Your task to perform on an android device: turn off airplane mode Image 0: 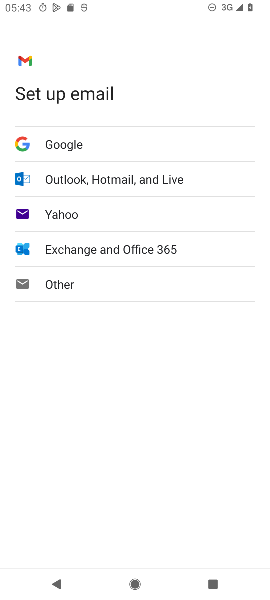
Step 0: press home button
Your task to perform on an android device: turn off airplane mode Image 1: 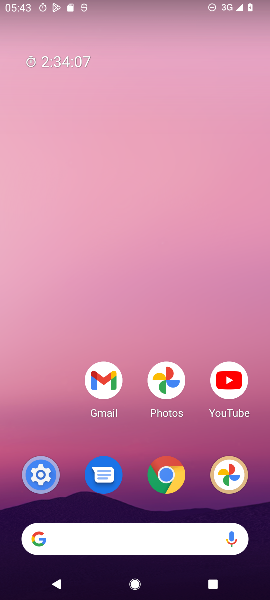
Step 1: drag from (57, 425) to (54, 159)
Your task to perform on an android device: turn off airplane mode Image 2: 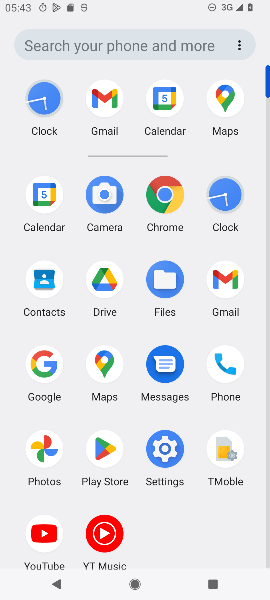
Step 2: click (168, 454)
Your task to perform on an android device: turn off airplane mode Image 3: 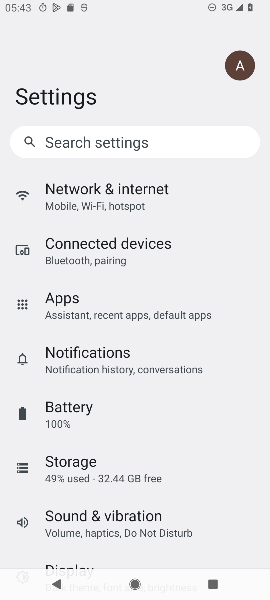
Step 3: drag from (231, 239) to (236, 294)
Your task to perform on an android device: turn off airplane mode Image 4: 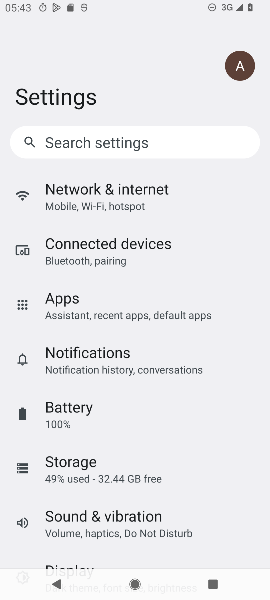
Step 4: drag from (239, 405) to (239, 317)
Your task to perform on an android device: turn off airplane mode Image 5: 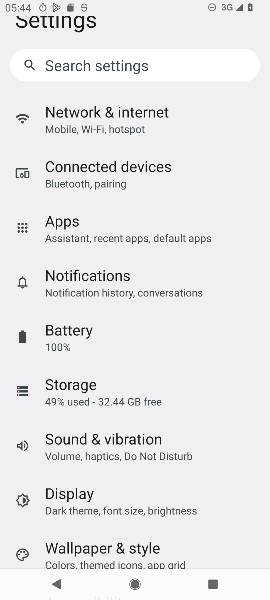
Step 5: drag from (223, 438) to (220, 313)
Your task to perform on an android device: turn off airplane mode Image 6: 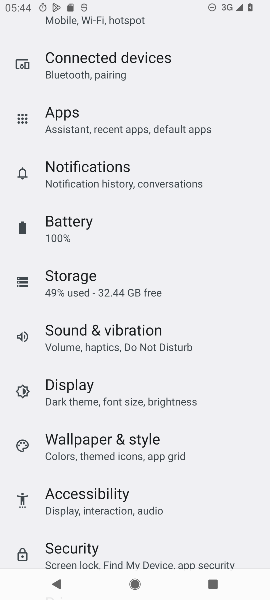
Step 6: drag from (220, 453) to (214, 331)
Your task to perform on an android device: turn off airplane mode Image 7: 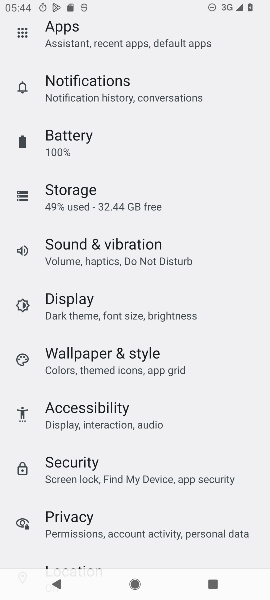
Step 7: drag from (226, 197) to (229, 292)
Your task to perform on an android device: turn off airplane mode Image 8: 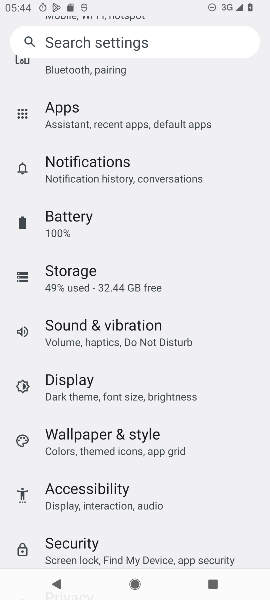
Step 8: drag from (226, 220) to (231, 340)
Your task to perform on an android device: turn off airplane mode Image 9: 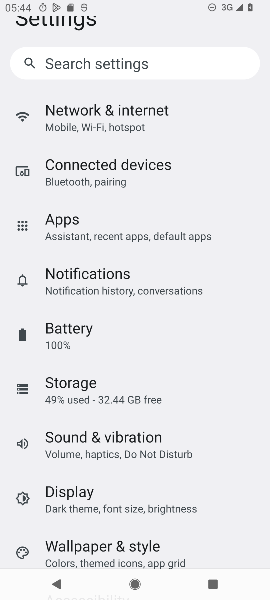
Step 9: drag from (232, 173) to (228, 336)
Your task to perform on an android device: turn off airplane mode Image 10: 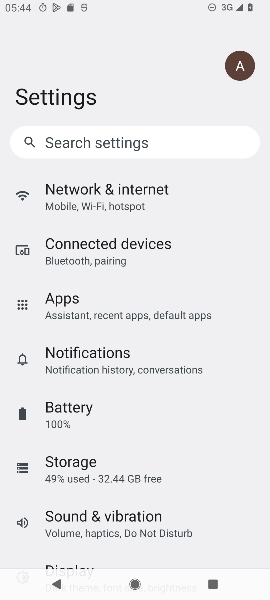
Step 10: drag from (234, 203) to (240, 313)
Your task to perform on an android device: turn off airplane mode Image 11: 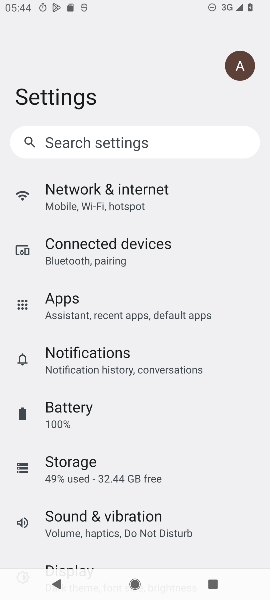
Step 11: click (141, 201)
Your task to perform on an android device: turn off airplane mode Image 12: 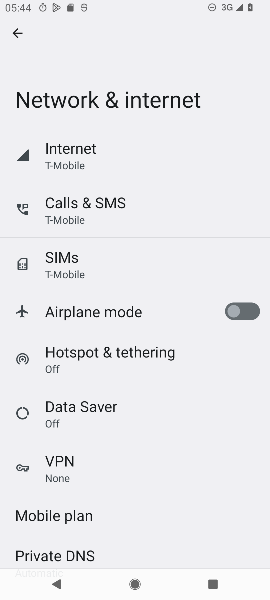
Step 12: task complete